Your task to perform on an android device: Go to Reddit.com Image 0: 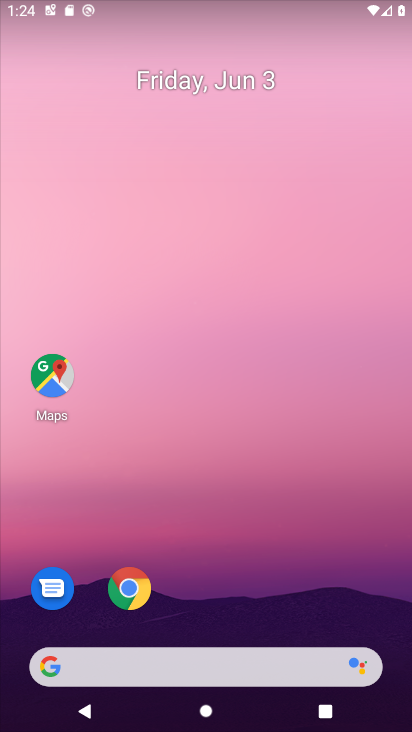
Step 0: drag from (186, 659) to (232, 115)
Your task to perform on an android device: Go to Reddit.com Image 1: 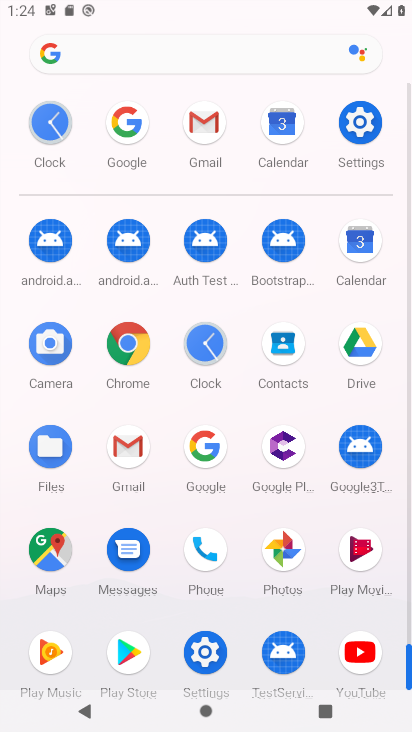
Step 1: click (133, 359)
Your task to perform on an android device: Go to Reddit.com Image 2: 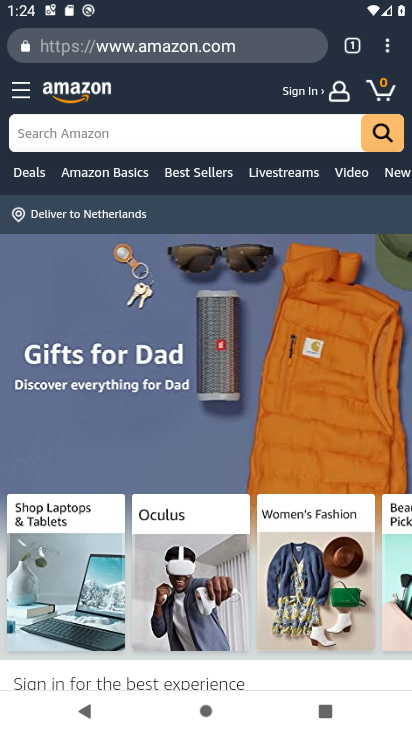
Step 2: click (188, 47)
Your task to perform on an android device: Go to Reddit.com Image 3: 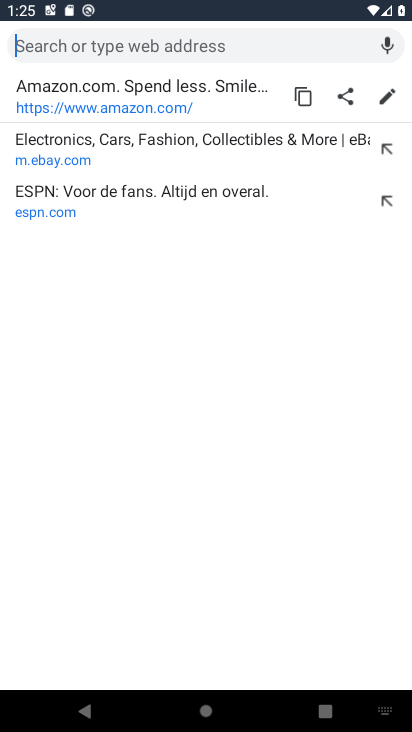
Step 3: type "reddit"
Your task to perform on an android device: Go to Reddit.com Image 4: 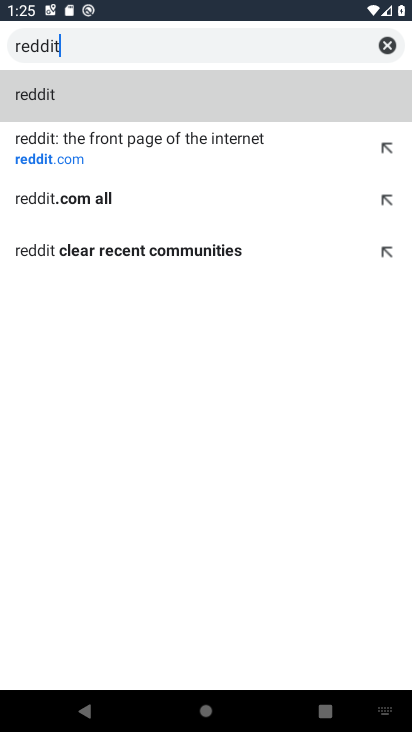
Step 4: click (190, 147)
Your task to perform on an android device: Go to Reddit.com Image 5: 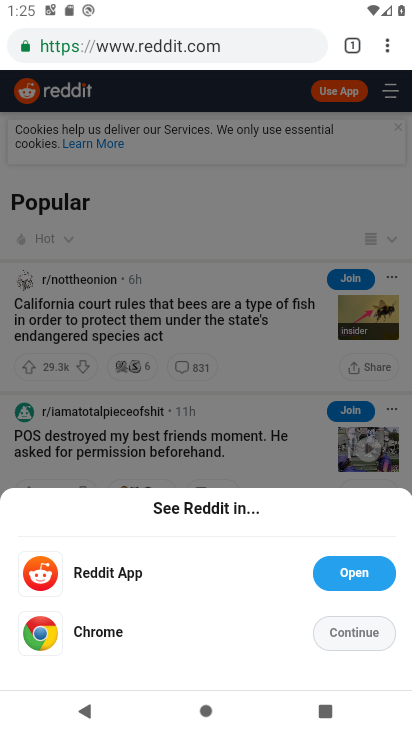
Step 5: task complete